Your task to perform on an android device: turn on airplane mode Image 0: 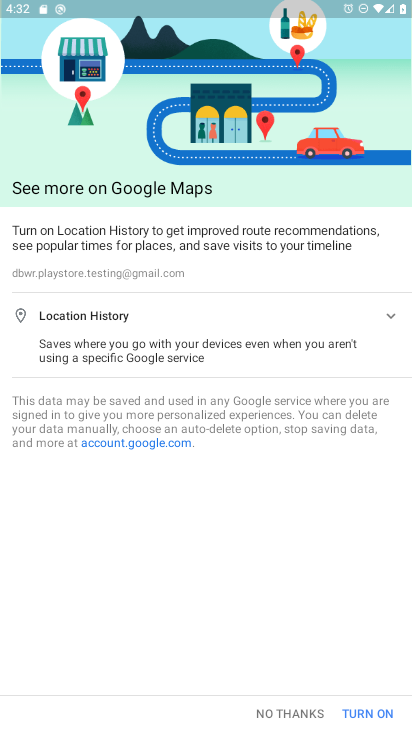
Step 0: press home button
Your task to perform on an android device: turn on airplane mode Image 1: 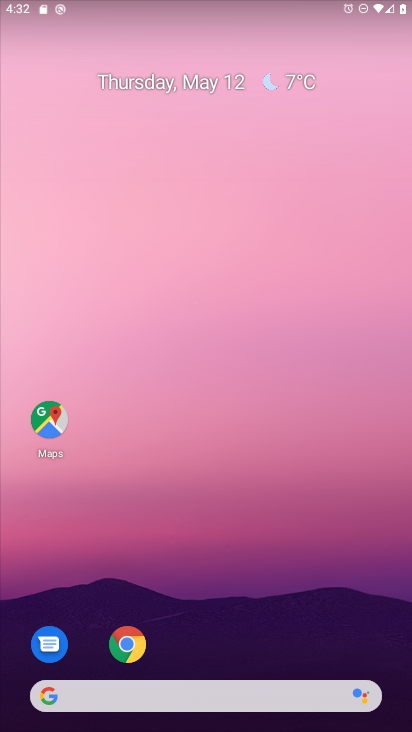
Step 1: drag from (193, 582) to (240, 293)
Your task to perform on an android device: turn on airplane mode Image 2: 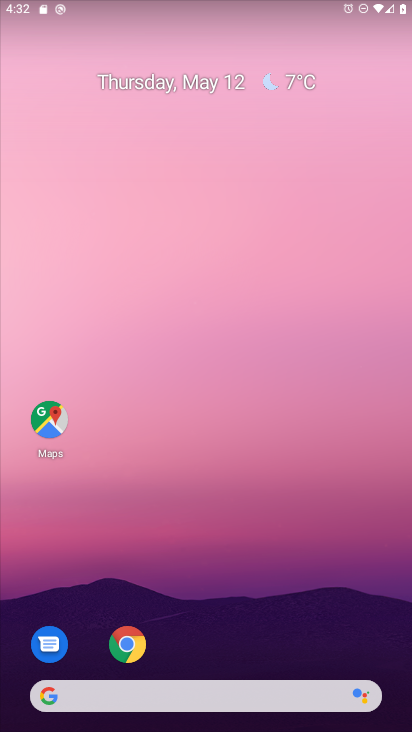
Step 2: drag from (205, 655) to (300, 71)
Your task to perform on an android device: turn on airplane mode Image 3: 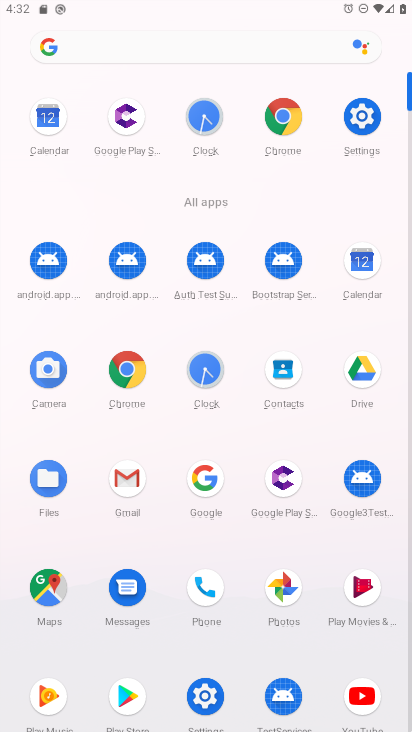
Step 3: click (370, 113)
Your task to perform on an android device: turn on airplane mode Image 4: 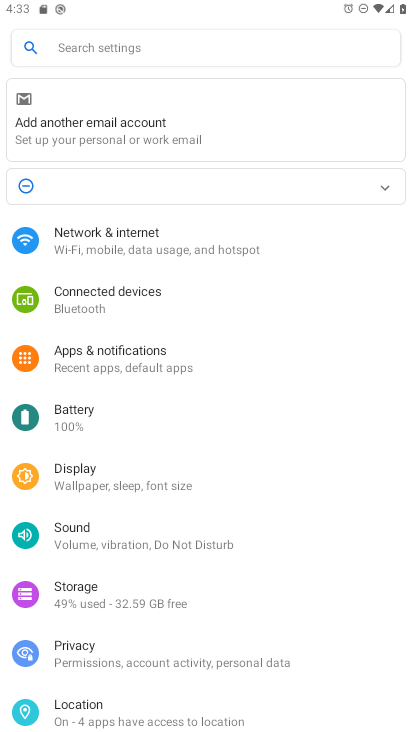
Step 4: click (155, 250)
Your task to perform on an android device: turn on airplane mode Image 5: 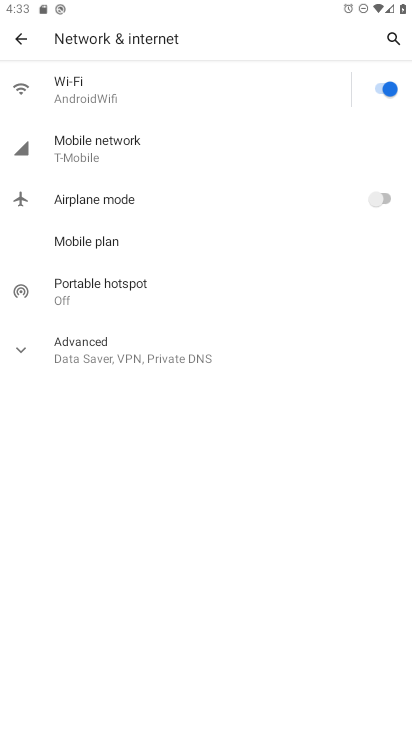
Step 5: click (358, 206)
Your task to perform on an android device: turn on airplane mode Image 6: 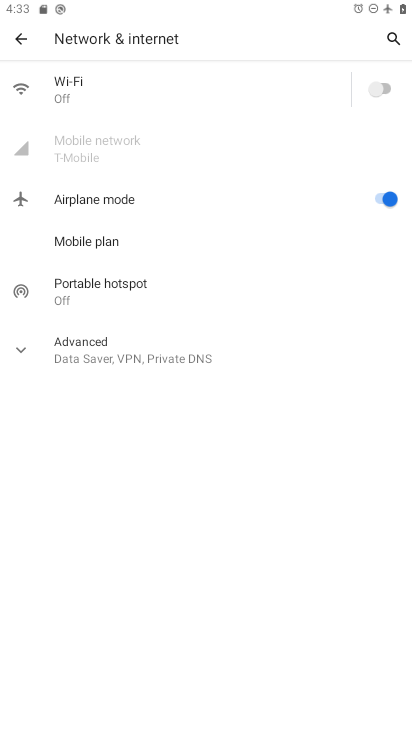
Step 6: task complete